Your task to perform on an android device: Open the map Image 0: 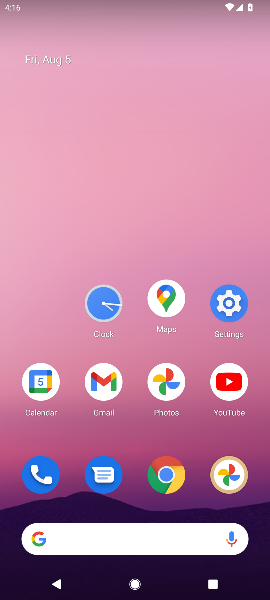
Step 0: click (170, 306)
Your task to perform on an android device: Open the map Image 1: 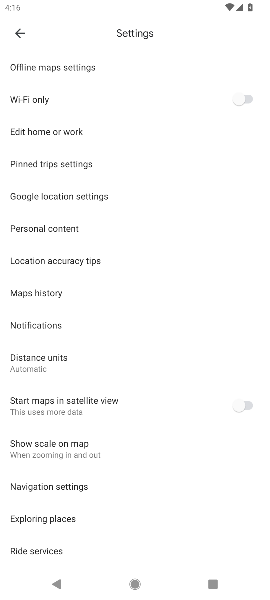
Step 1: click (13, 32)
Your task to perform on an android device: Open the map Image 2: 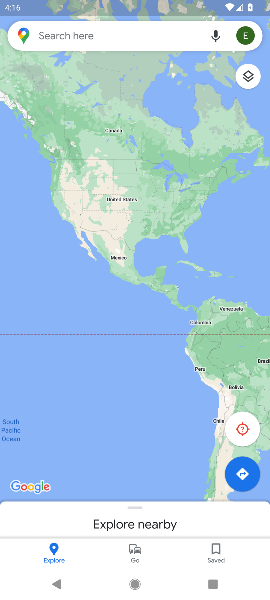
Step 2: task complete